Your task to perform on an android device: toggle notification dots Image 0: 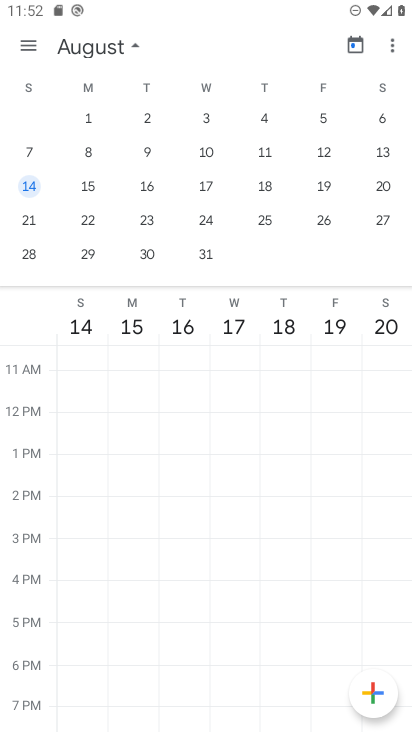
Step 0: press home button
Your task to perform on an android device: toggle notification dots Image 1: 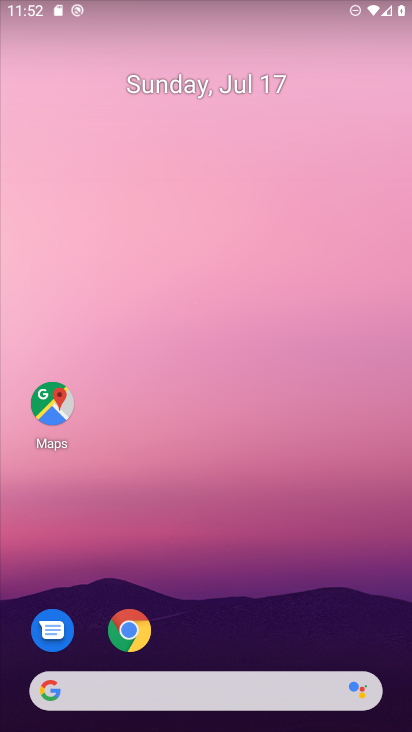
Step 1: drag from (220, 590) to (254, 53)
Your task to perform on an android device: toggle notification dots Image 2: 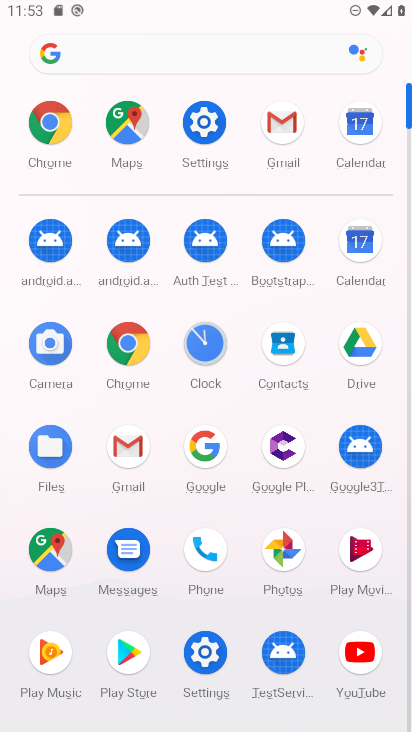
Step 2: click (210, 648)
Your task to perform on an android device: toggle notification dots Image 3: 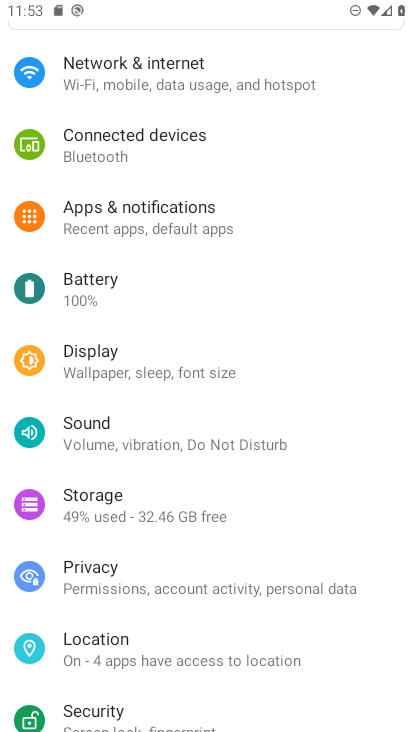
Step 3: click (163, 213)
Your task to perform on an android device: toggle notification dots Image 4: 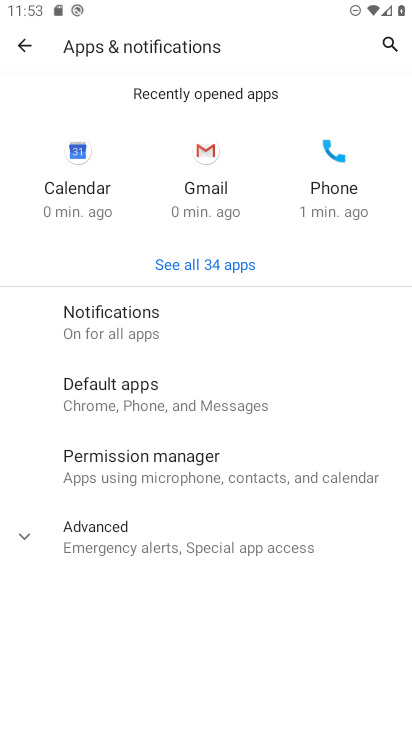
Step 4: click (115, 332)
Your task to perform on an android device: toggle notification dots Image 5: 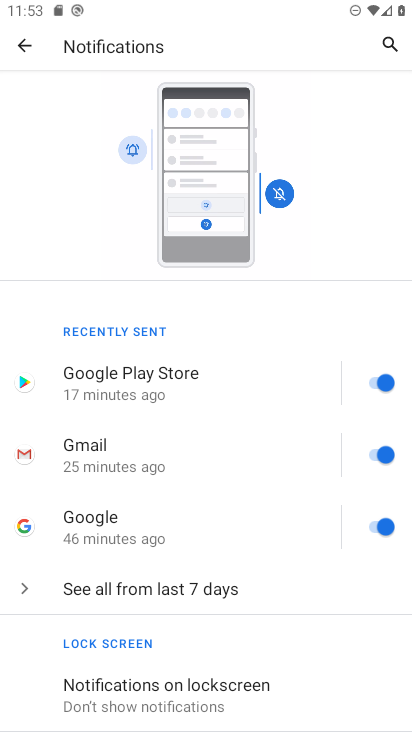
Step 5: drag from (141, 644) to (180, 465)
Your task to perform on an android device: toggle notification dots Image 6: 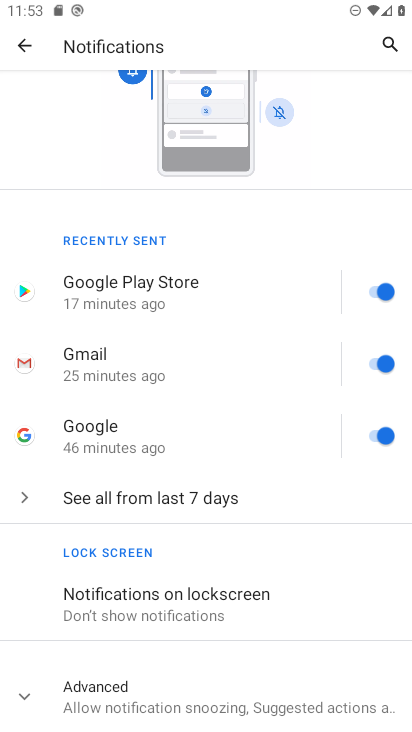
Step 6: click (93, 690)
Your task to perform on an android device: toggle notification dots Image 7: 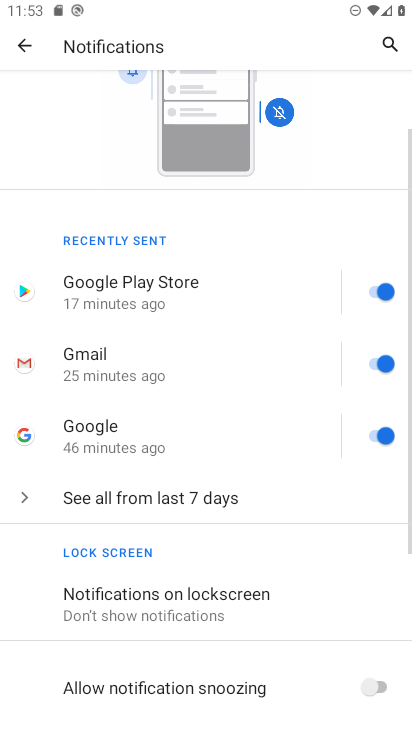
Step 7: drag from (179, 671) to (253, 289)
Your task to perform on an android device: toggle notification dots Image 8: 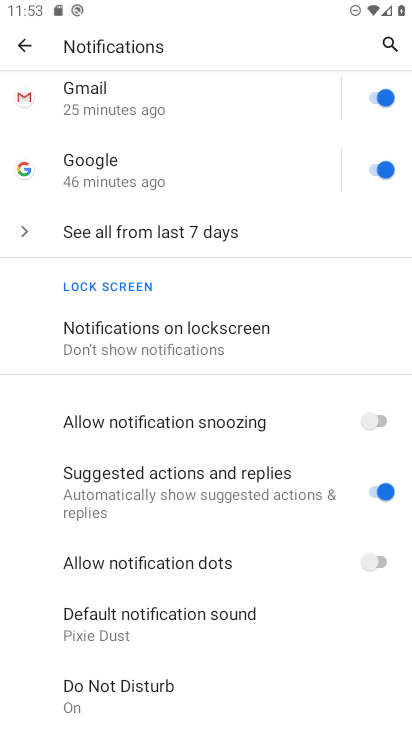
Step 8: click (382, 559)
Your task to perform on an android device: toggle notification dots Image 9: 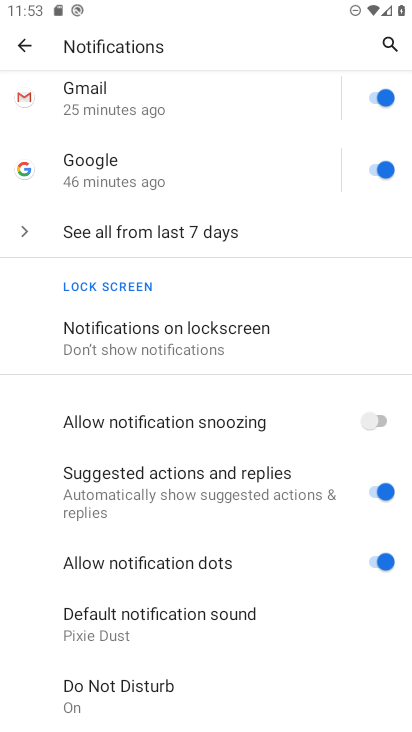
Step 9: task complete